Your task to perform on an android device: turn on priority inbox in the gmail app Image 0: 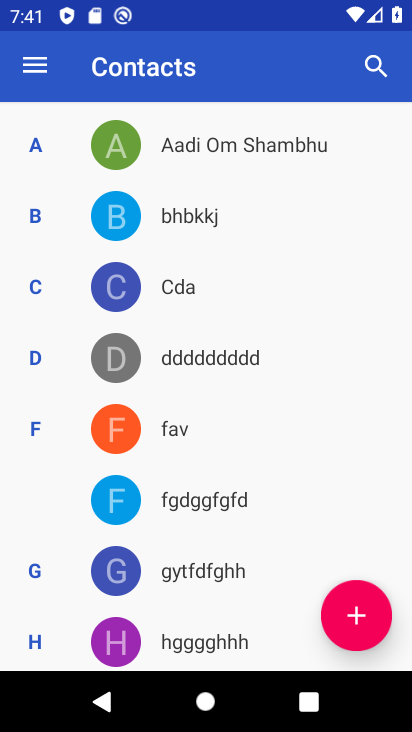
Step 0: press home button
Your task to perform on an android device: turn on priority inbox in the gmail app Image 1: 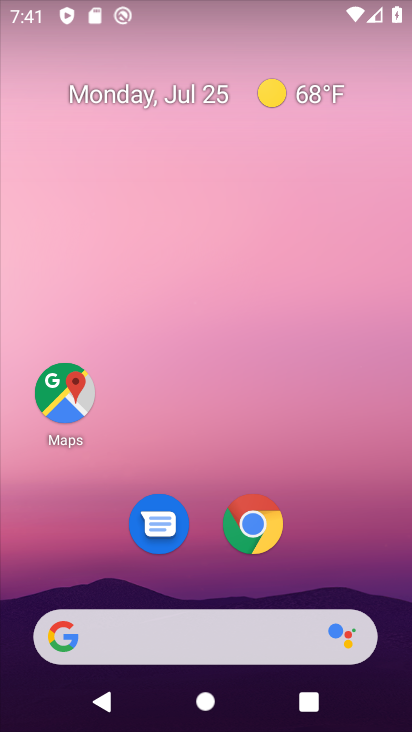
Step 1: drag from (324, 557) to (347, 118)
Your task to perform on an android device: turn on priority inbox in the gmail app Image 2: 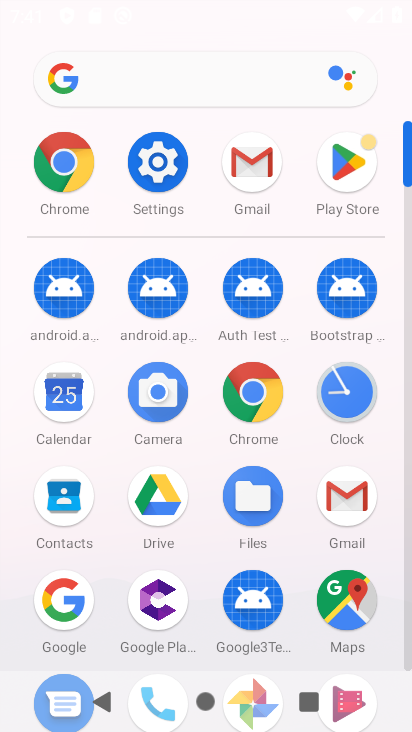
Step 2: click (244, 174)
Your task to perform on an android device: turn on priority inbox in the gmail app Image 3: 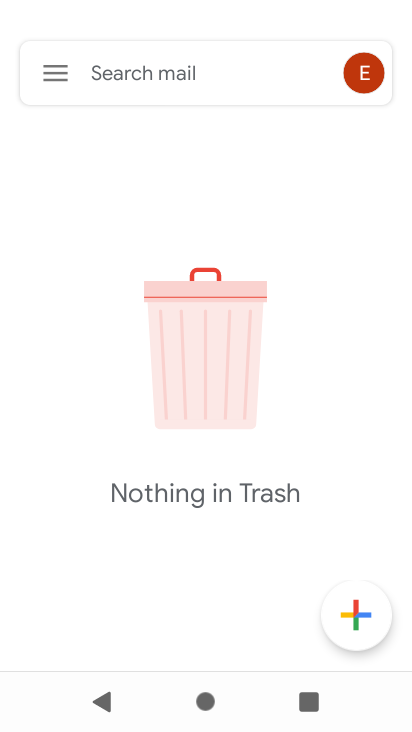
Step 3: click (56, 79)
Your task to perform on an android device: turn on priority inbox in the gmail app Image 4: 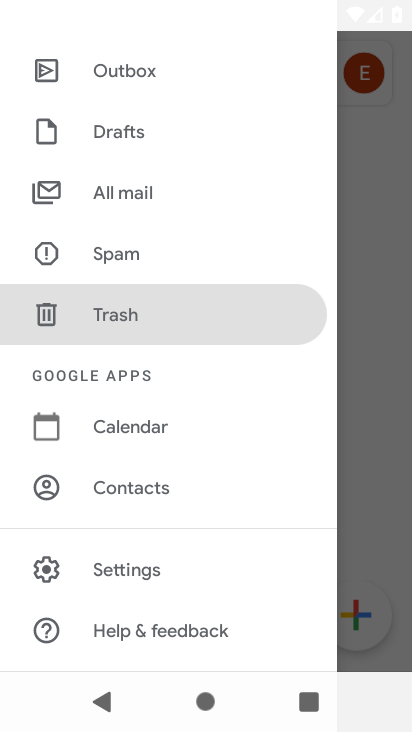
Step 4: click (127, 564)
Your task to perform on an android device: turn on priority inbox in the gmail app Image 5: 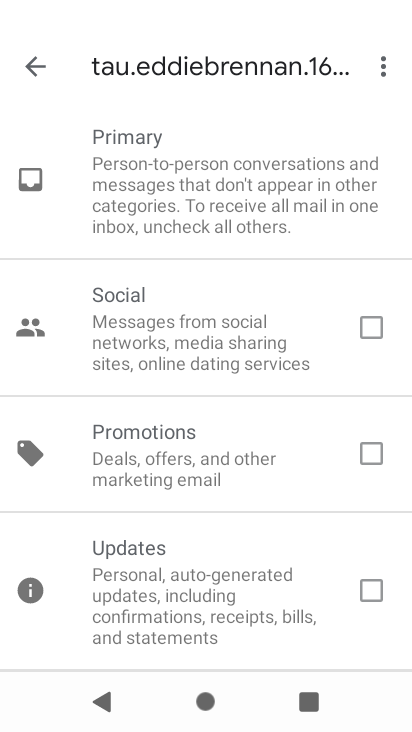
Step 5: click (40, 61)
Your task to perform on an android device: turn on priority inbox in the gmail app Image 6: 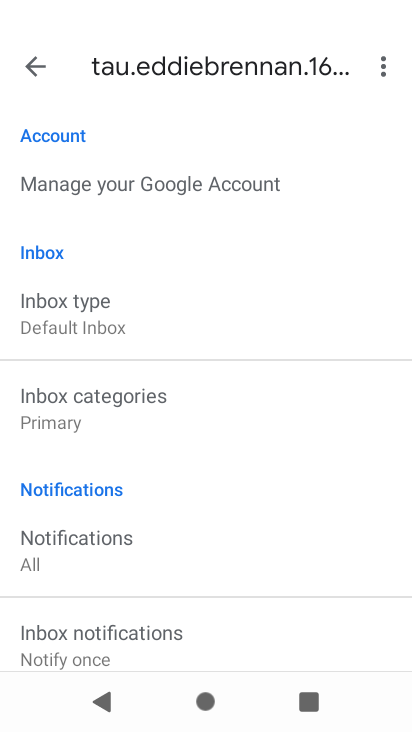
Step 6: click (101, 303)
Your task to perform on an android device: turn on priority inbox in the gmail app Image 7: 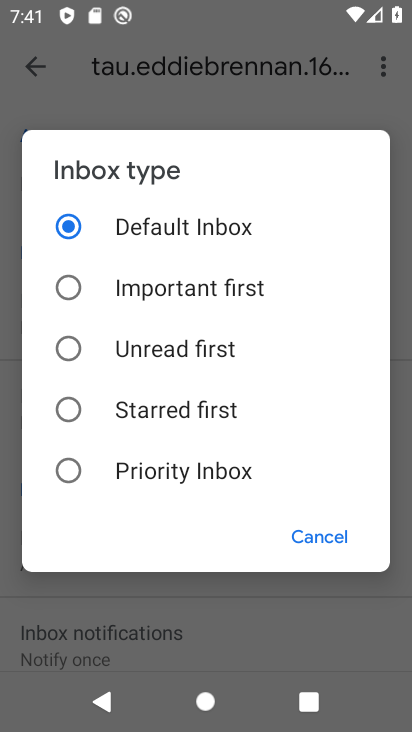
Step 7: click (62, 473)
Your task to perform on an android device: turn on priority inbox in the gmail app Image 8: 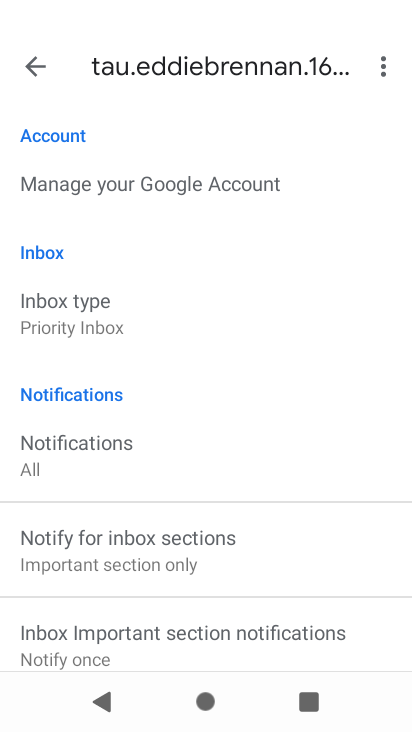
Step 8: task complete